Your task to perform on an android device: Show me the alarms in the clock app Image 0: 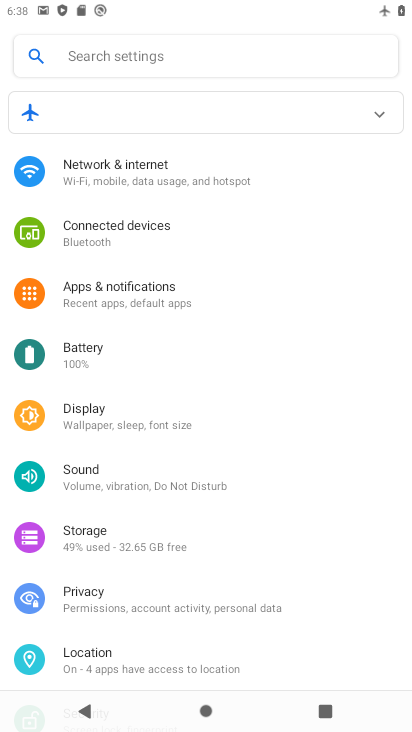
Step 0: press home button
Your task to perform on an android device: Show me the alarms in the clock app Image 1: 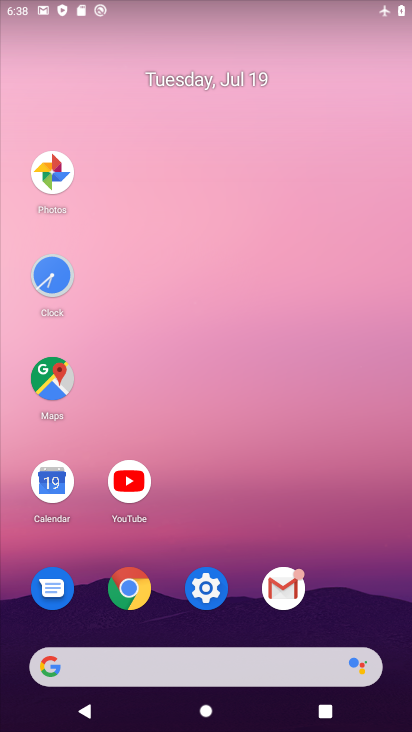
Step 1: click (52, 290)
Your task to perform on an android device: Show me the alarms in the clock app Image 2: 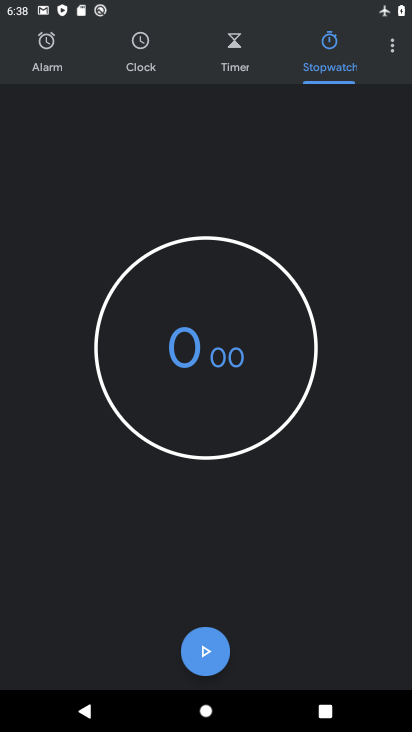
Step 2: click (42, 43)
Your task to perform on an android device: Show me the alarms in the clock app Image 3: 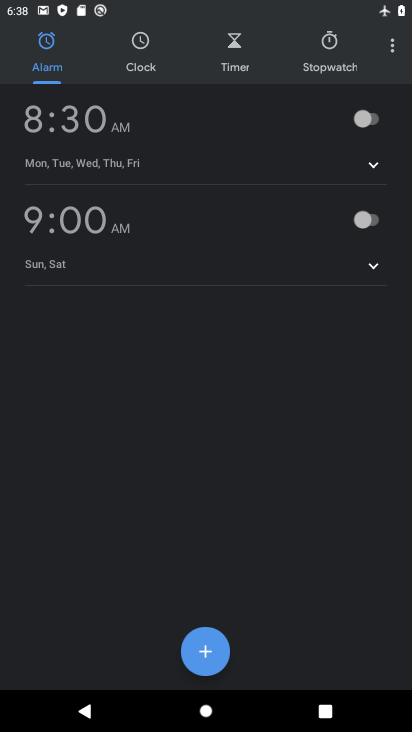
Step 3: task complete